Your task to perform on an android device: Open Chrome and go to settings Image 0: 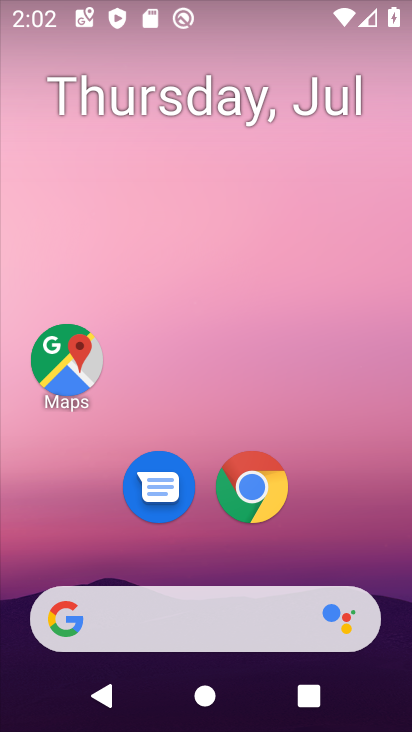
Step 0: drag from (369, 548) to (370, 150)
Your task to perform on an android device: Open Chrome and go to settings Image 1: 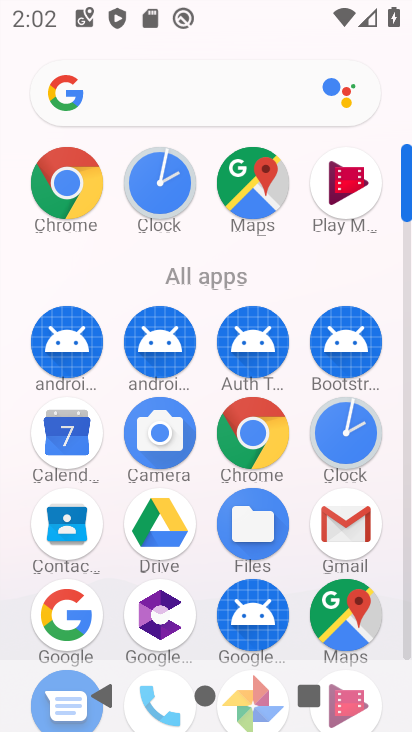
Step 1: click (268, 438)
Your task to perform on an android device: Open Chrome and go to settings Image 2: 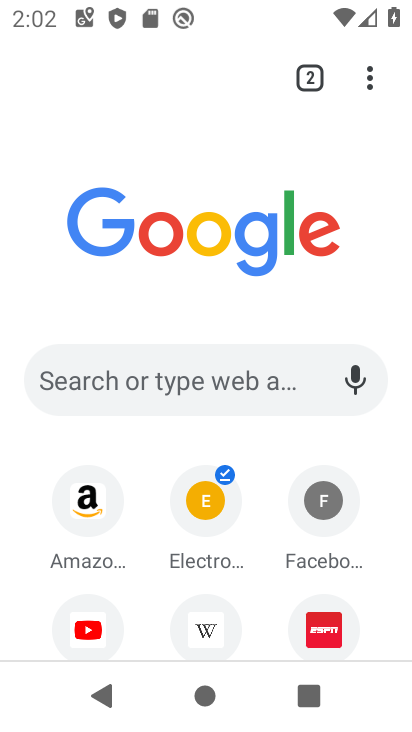
Step 2: click (367, 92)
Your task to perform on an android device: Open Chrome and go to settings Image 3: 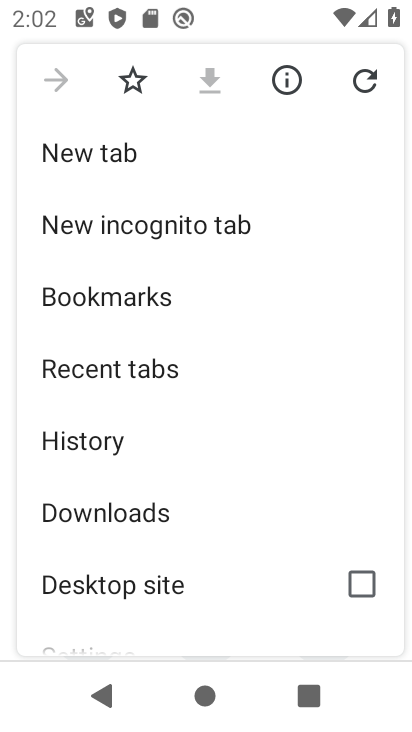
Step 3: drag from (371, 394) to (369, 318)
Your task to perform on an android device: Open Chrome and go to settings Image 4: 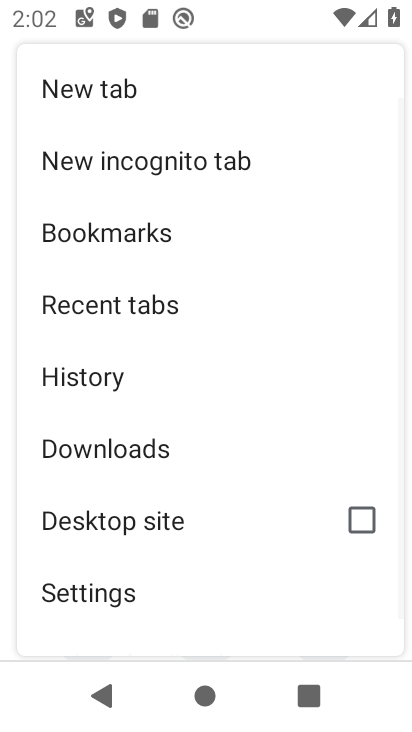
Step 4: drag from (344, 400) to (342, 302)
Your task to perform on an android device: Open Chrome and go to settings Image 5: 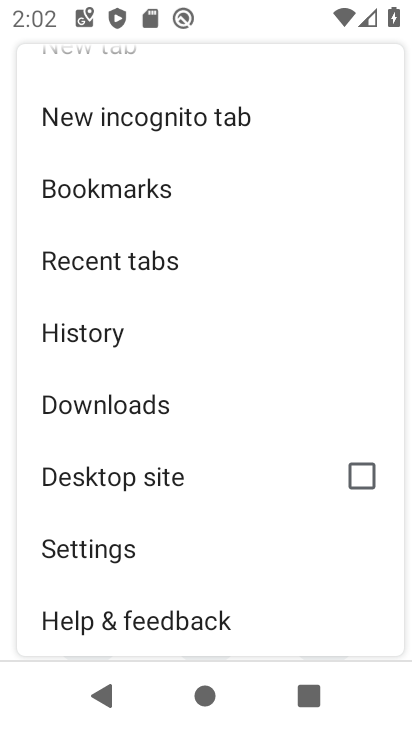
Step 5: drag from (338, 390) to (337, 301)
Your task to perform on an android device: Open Chrome and go to settings Image 6: 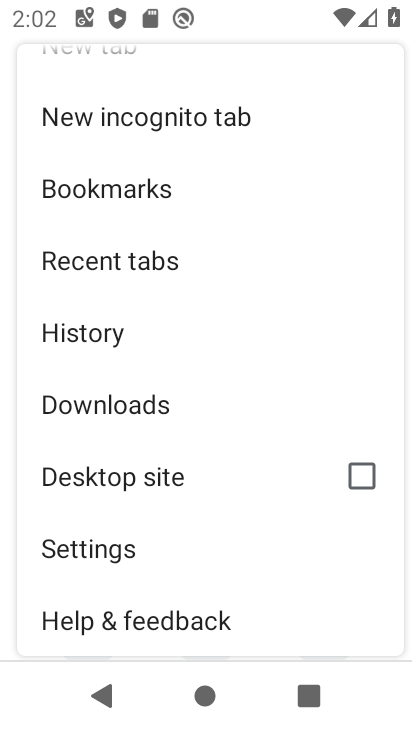
Step 6: drag from (285, 397) to (285, 289)
Your task to perform on an android device: Open Chrome and go to settings Image 7: 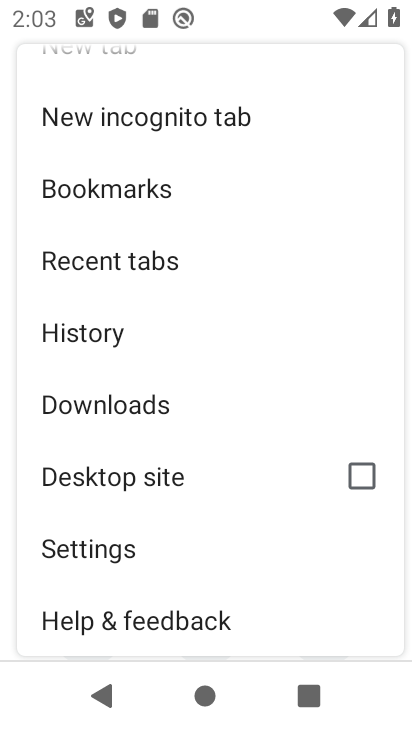
Step 7: click (170, 546)
Your task to perform on an android device: Open Chrome and go to settings Image 8: 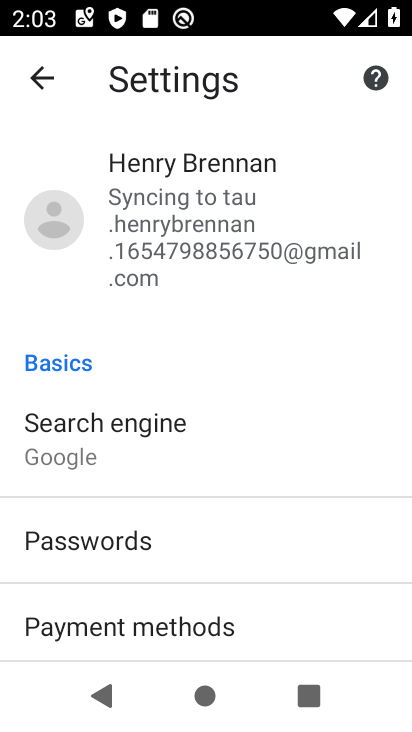
Step 8: task complete